Your task to perform on an android device: Go to ESPN.com Image 0: 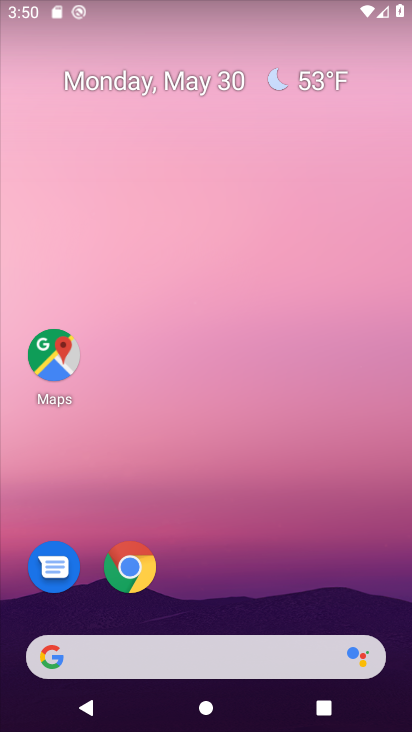
Step 0: drag from (272, 638) to (314, 14)
Your task to perform on an android device: Go to ESPN.com Image 1: 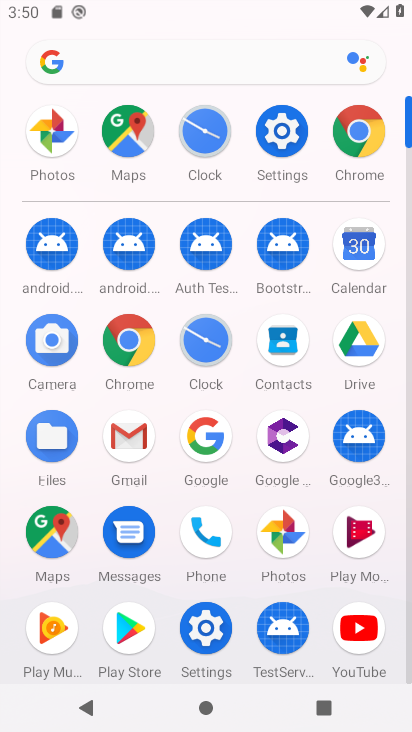
Step 1: click (135, 313)
Your task to perform on an android device: Go to ESPN.com Image 2: 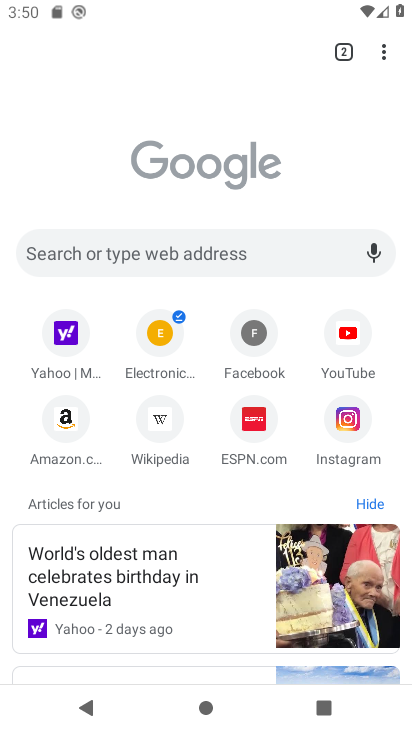
Step 2: click (248, 432)
Your task to perform on an android device: Go to ESPN.com Image 3: 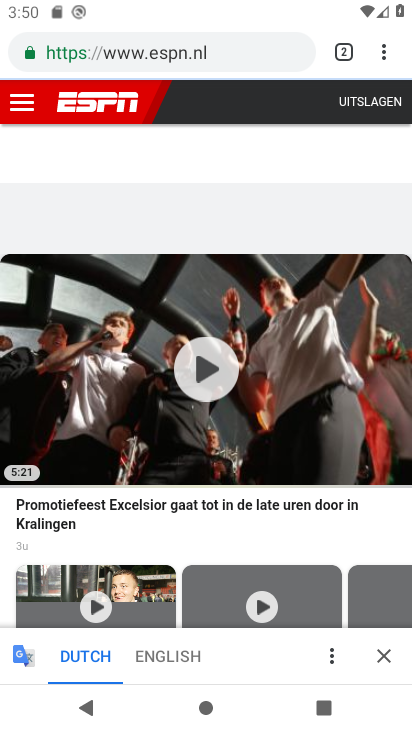
Step 3: task complete